Your task to perform on an android device: toggle sleep mode Image 0: 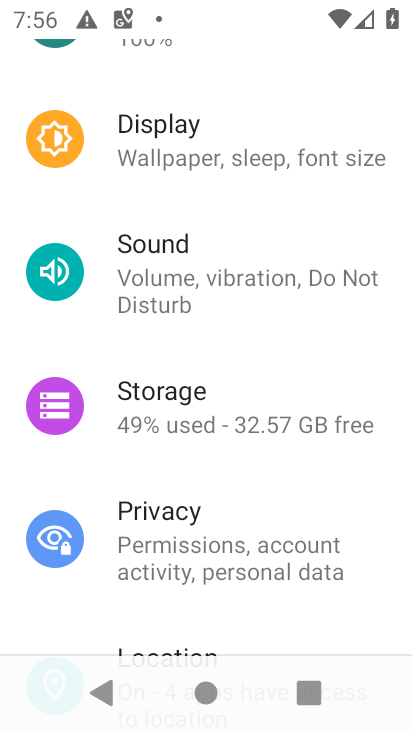
Step 0: drag from (257, 206) to (265, 430)
Your task to perform on an android device: toggle sleep mode Image 1: 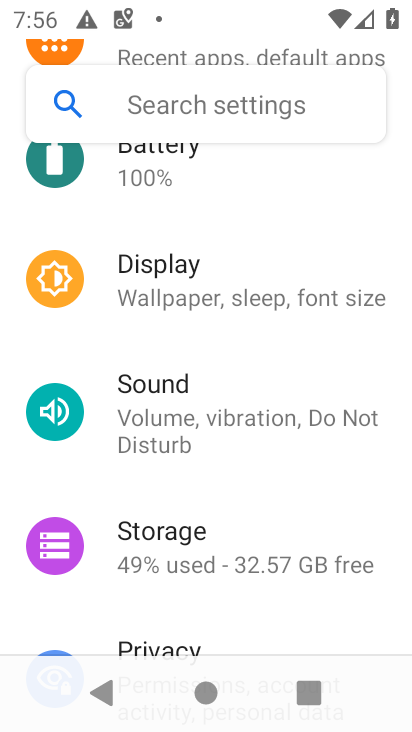
Step 1: task complete